Your task to perform on an android device: read, delete, or share a saved page in the chrome app Image 0: 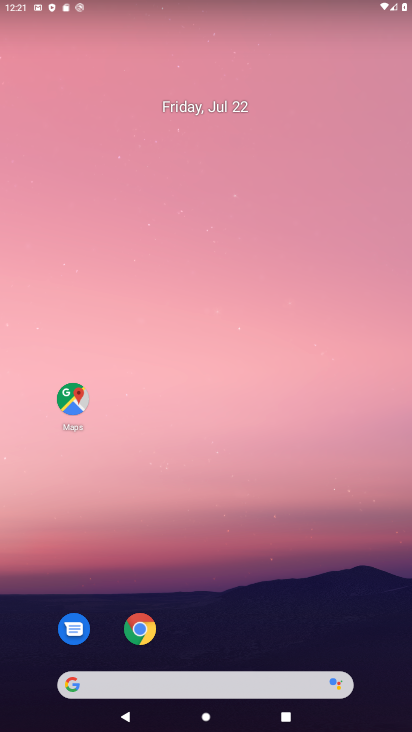
Step 0: drag from (201, 557) to (199, 223)
Your task to perform on an android device: read, delete, or share a saved page in the chrome app Image 1: 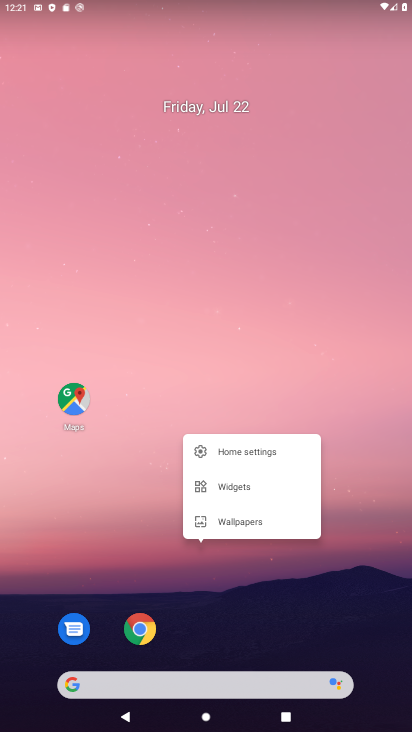
Step 1: drag from (243, 461) to (250, 154)
Your task to perform on an android device: read, delete, or share a saved page in the chrome app Image 2: 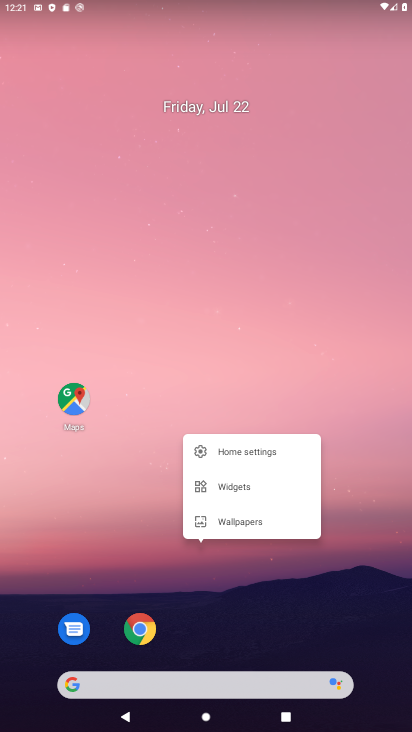
Step 2: drag from (195, 526) to (193, 154)
Your task to perform on an android device: read, delete, or share a saved page in the chrome app Image 3: 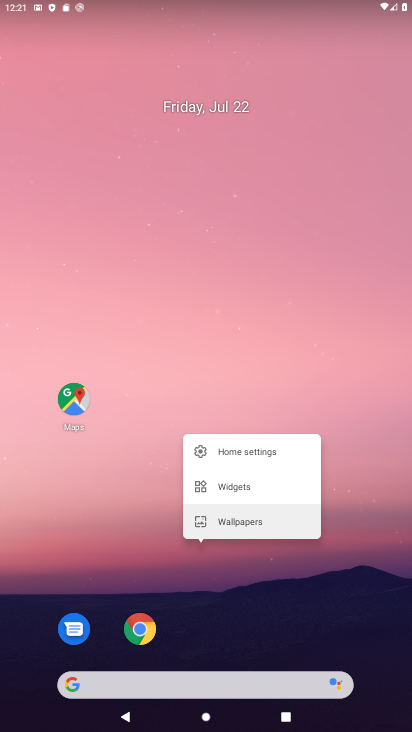
Step 3: drag from (150, 476) to (191, 110)
Your task to perform on an android device: read, delete, or share a saved page in the chrome app Image 4: 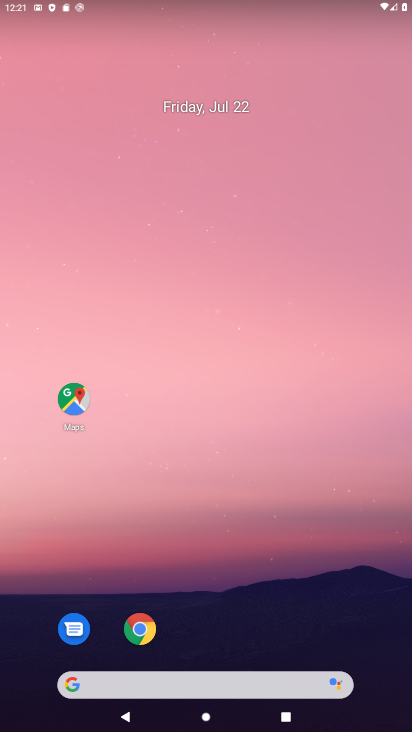
Step 4: drag from (222, 446) to (248, 236)
Your task to perform on an android device: read, delete, or share a saved page in the chrome app Image 5: 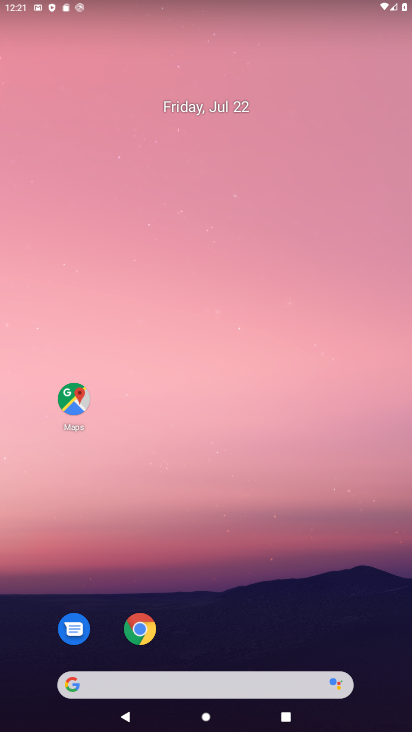
Step 5: drag from (170, 502) to (170, 153)
Your task to perform on an android device: read, delete, or share a saved page in the chrome app Image 6: 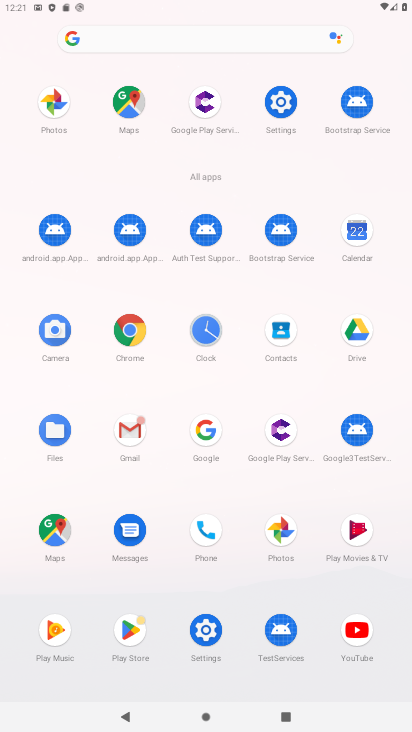
Step 6: click (128, 332)
Your task to perform on an android device: read, delete, or share a saved page in the chrome app Image 7: 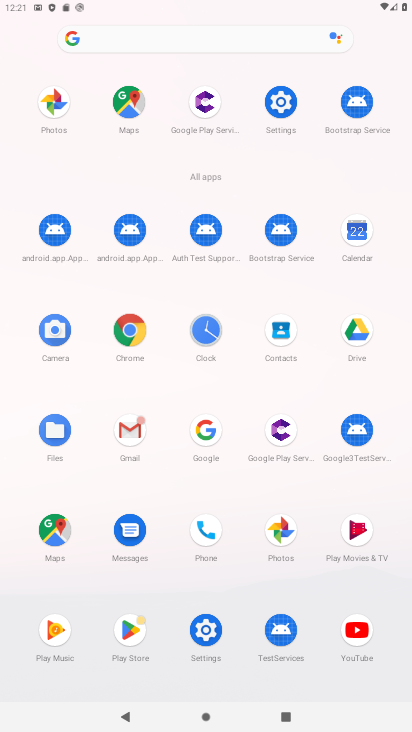
Step 7: click (129, 333)
Your task to perform on an android device: read, delete, or share a saved page in the chrome app Image 8: 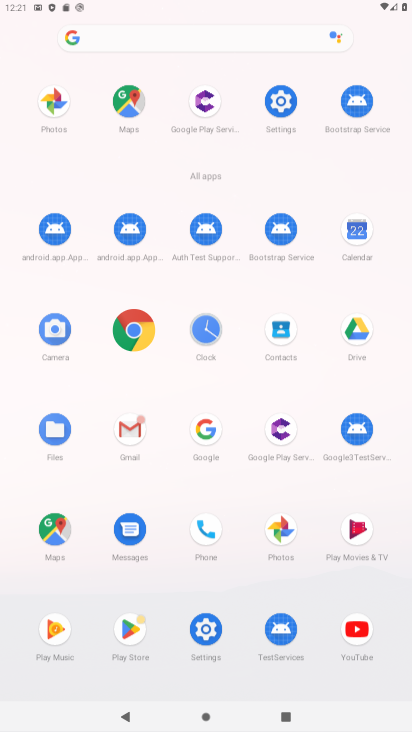
Step 8: click (132, 331)
Your task to perform on an android device: read, delete, or share a saved page in the chrome app Image 9: 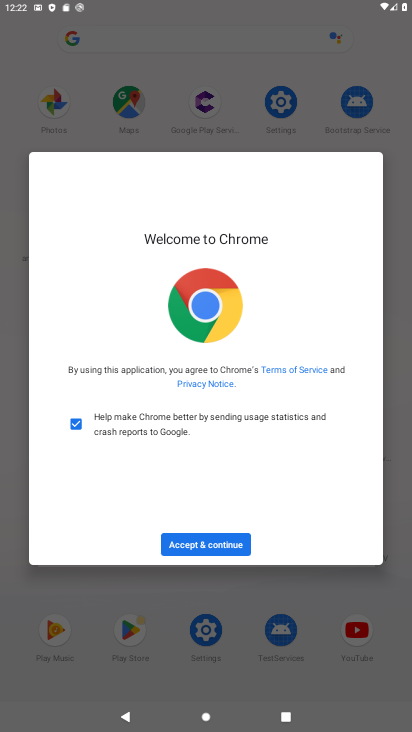
Step 9: click (209, 535)
Your task to perform on an android device: read, delete, or share a saved page in the chrome app Image 10: 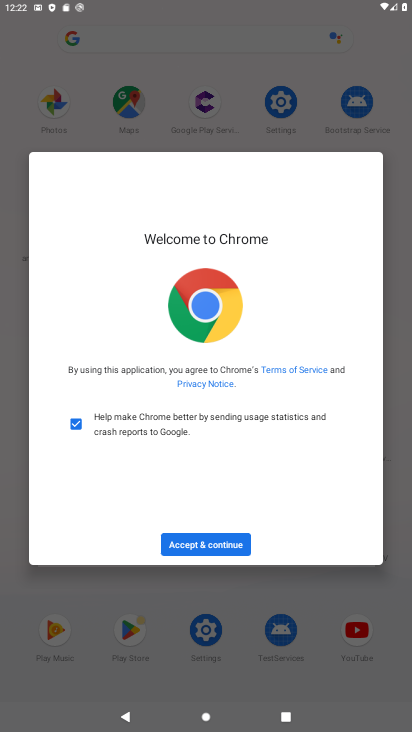
Step 10: click (208, 544)
Your task to perform on an android device: read, delete, or share a saved page in the chrome app Image 11: 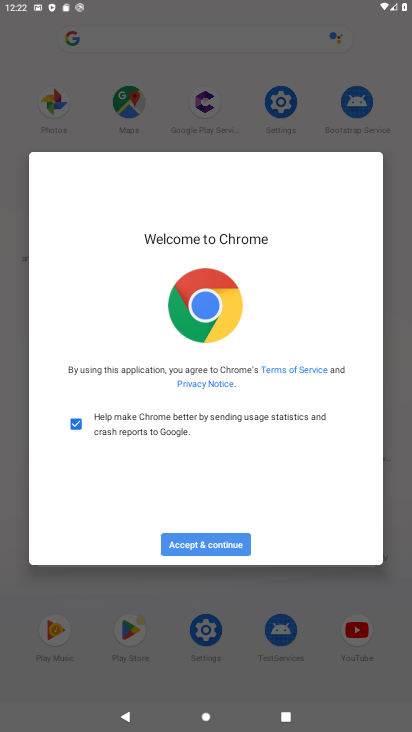
Step 11: click (208, 544)
Your task to perform on an android device: read, delete, or share a saved page in the chrome app Image 12: 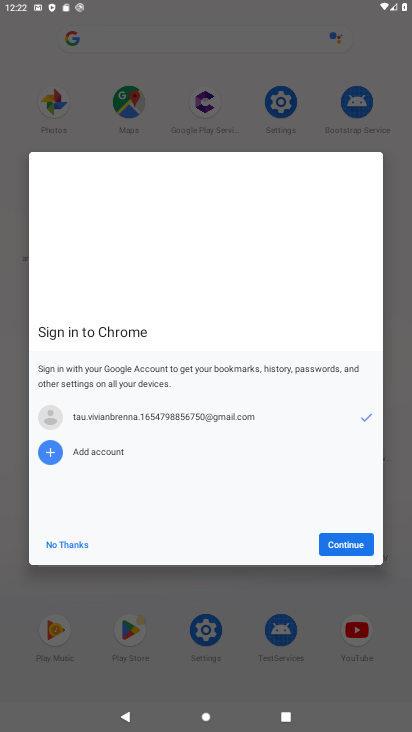
Step 12: click (87, 546)
Your task to perform on an android device: read, delete, or share a saved page in the chrome app Image 13: 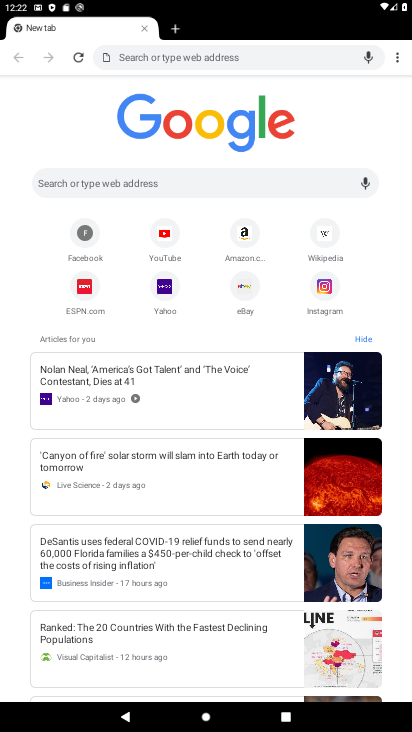
Step 13: drag from (396, 58) to (284, 203)
Your task to perform on an android device: read, delete, or share a saved page in the chrome app Image 14: 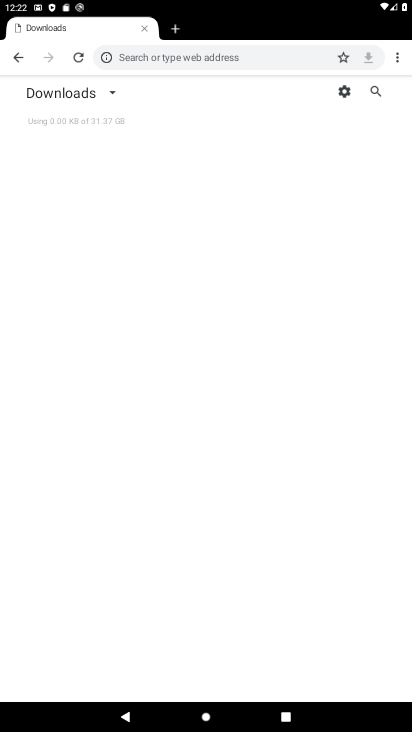
Step 14: click (112, 82)
Your task to perform on an android device: read, delete, or share a saved page in the chrome app Image 15: 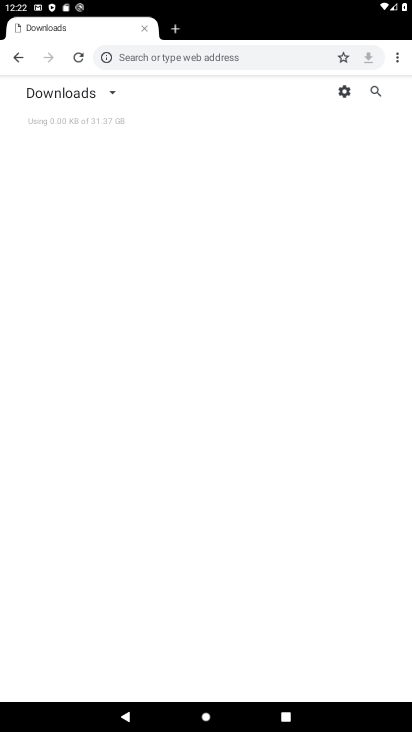
Step 15: click (112, 82)
Your task to perform on an android device: read, delete, or share a saved page in the chrome app Image 16: 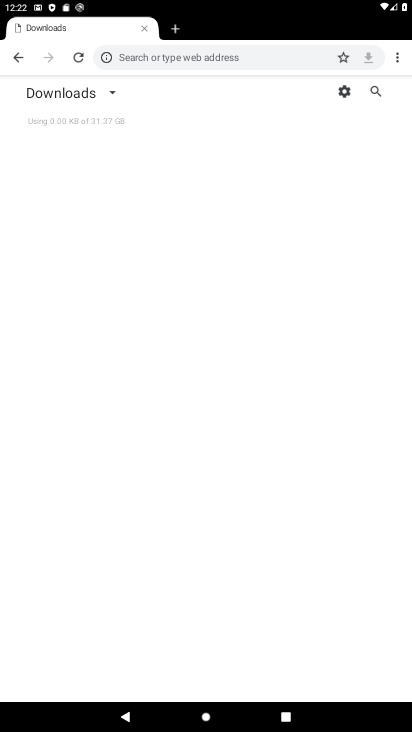
Step 16: click (113, 90)
Your task to perform on an android device: read, delete, or share a saved page in the chrome app Image 17: 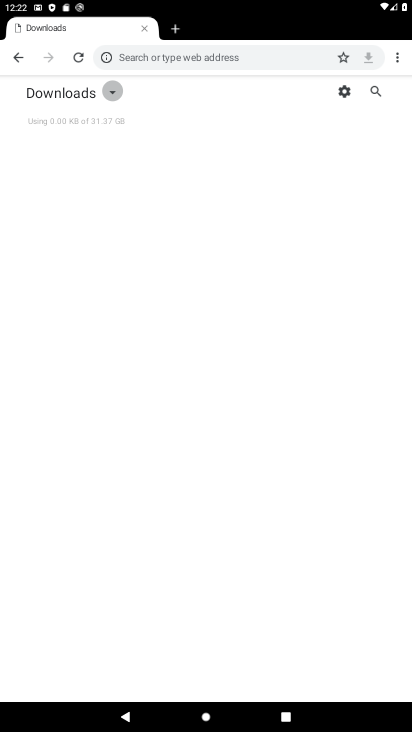
Step 17: click (112, 92)
Your task to perform on an android device: read, delete, or share a saved page in the chrome app Image 18: 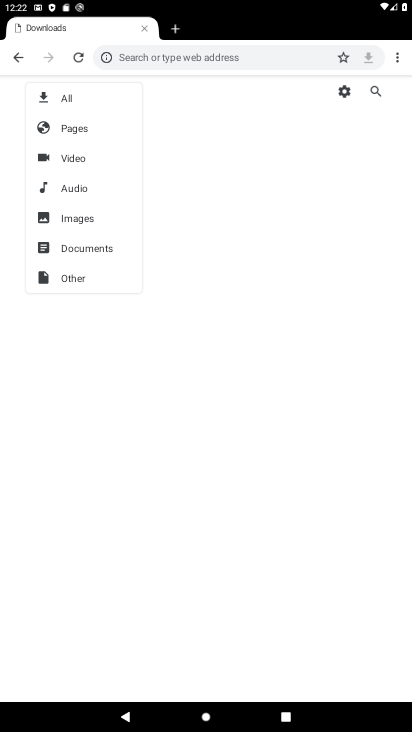
Step 18: click (78, 163)
Your task to perform on an android device: read, delete, or share a saved page in the chrome app Image 19: 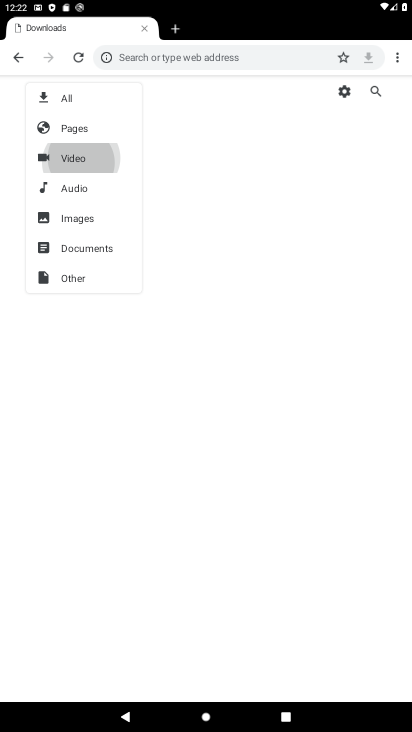
Step 19: click (77, 161)
Your task to perform on an android device: read, delete, or share a saved page in the chrome app Image 20: 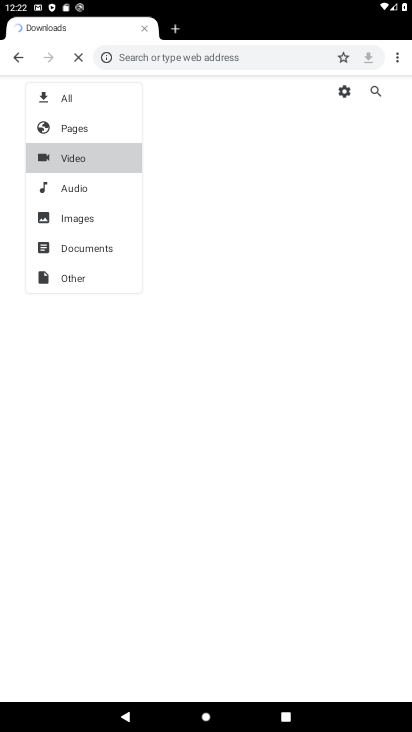
Step 20: click (77, 160)
Your task to perform on an android device: read, delete, or share a saved page in the chrome app Image 21: 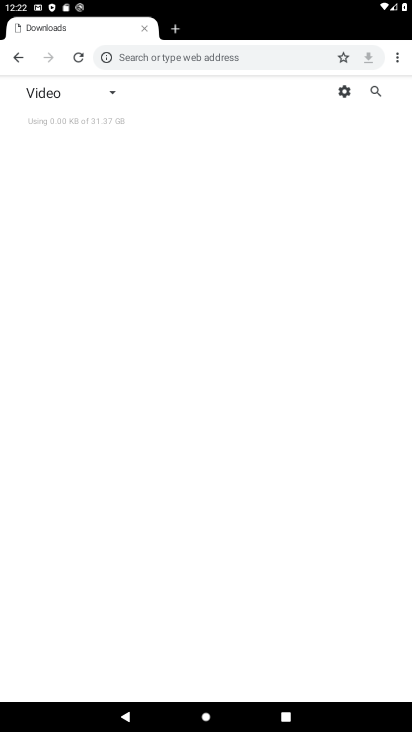
Step 21: task complete